Your task to perform on an android device: empty trash in google photos Image 0: 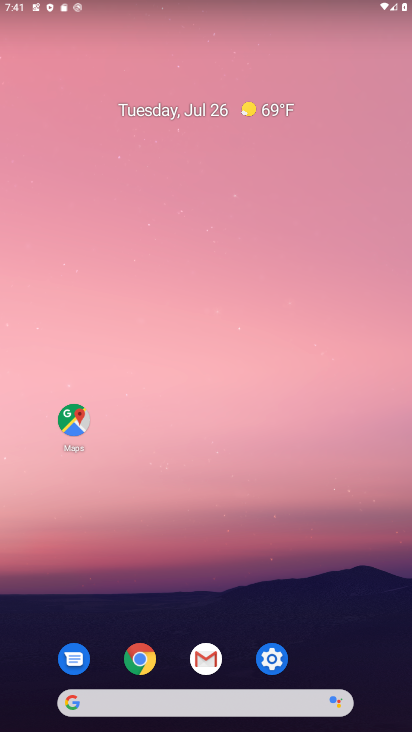
Step 0: drag from (252, 711) to (316, 65)
Your task to perform on an android device: empty trash in google photos Image 1: 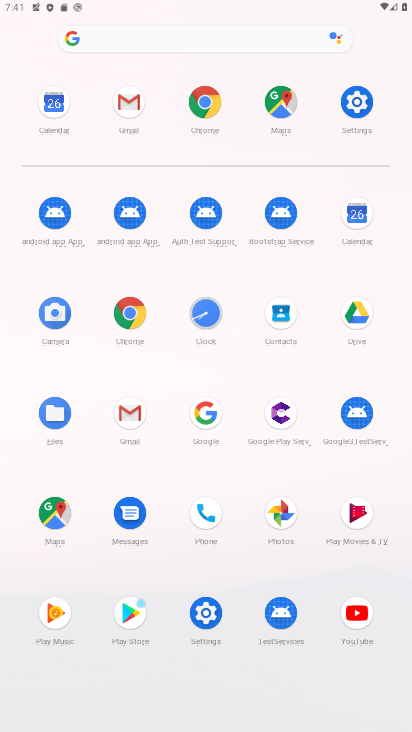
Step 1: click (282, 505)
Your task to perform on an android device: empty trash in google photos Image 2: 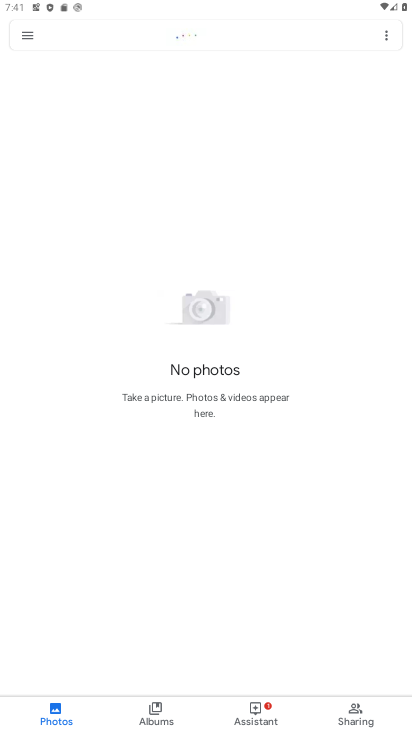
Step 2: click (28, 33)
Your task to perform on an android device: empty trash in google photos Image 3: 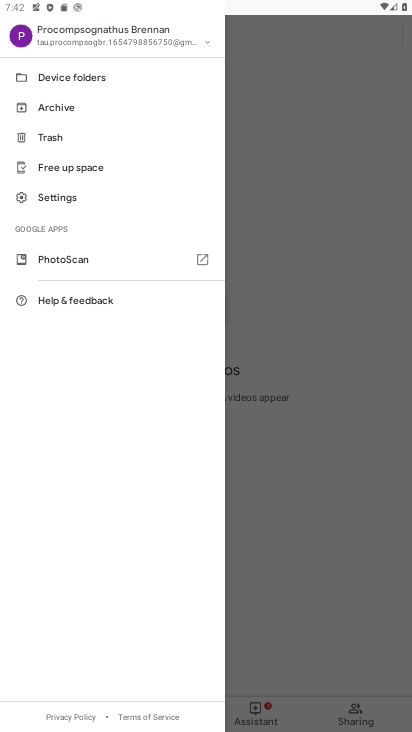
Step 3: click (71, 140)
Your task to perform on an android device: empty trash in google photos Image 4: 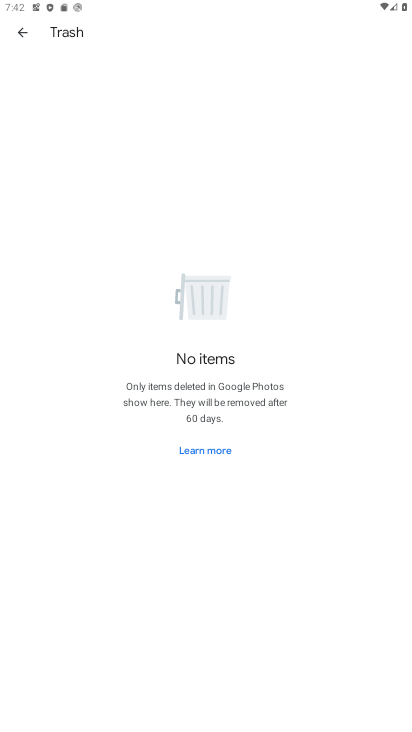
Step 4: task complete